Your task to perform on an android device: Open location settings Image 0: 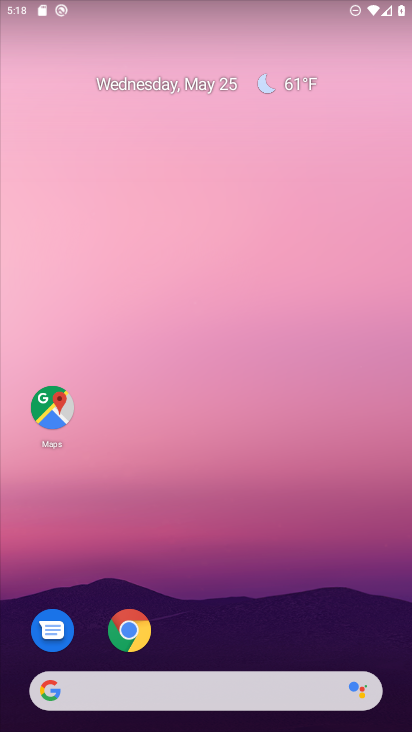
Step 0: drag from (241, 650) to (286, 76)
Your task to perform on an android device: Open location settings Image 1: 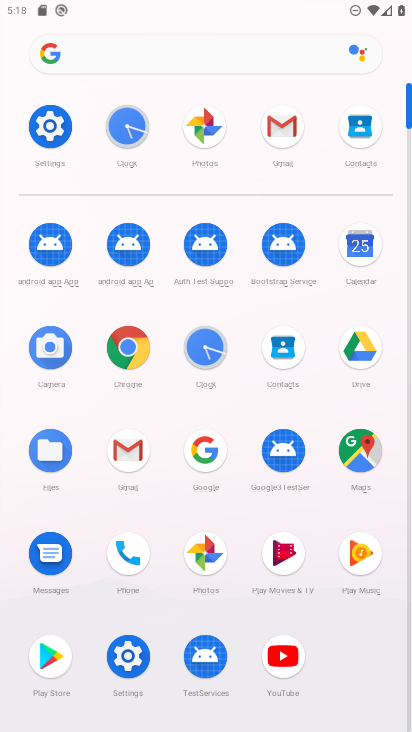
Step 1: click (56, 138)
Your task to perform on an android device: Open location settings Image 2: 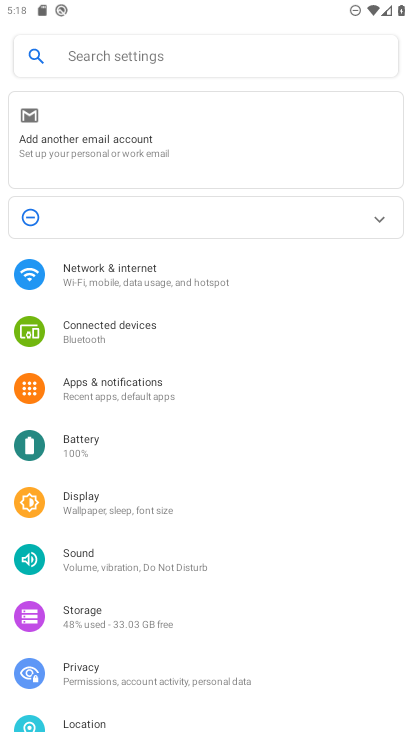
Step 2: click (96, 716)
Your task to perform on an android device: Open location settings Image 3: 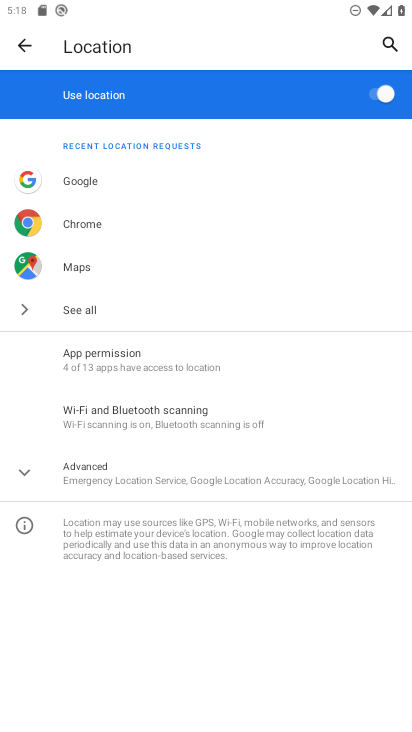
Step 3: task complete